Your task to perform on an android device: turn on javascript in the chrome app Image 0: 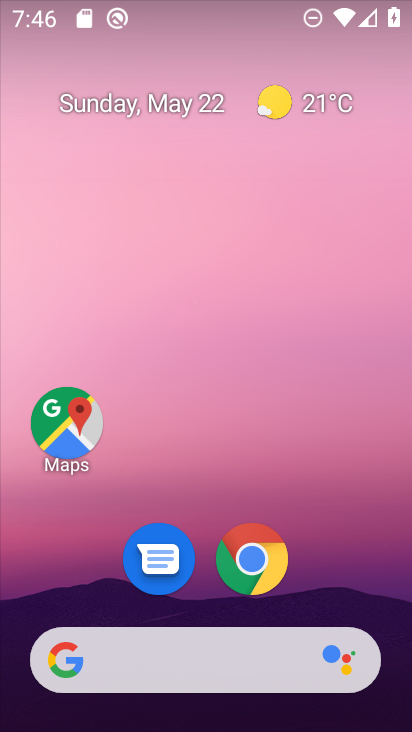
Step 0: drag from (255, 699) to (319, 394)
Your task to perform on an android device: turn on javascript in the chrome app Image 1: 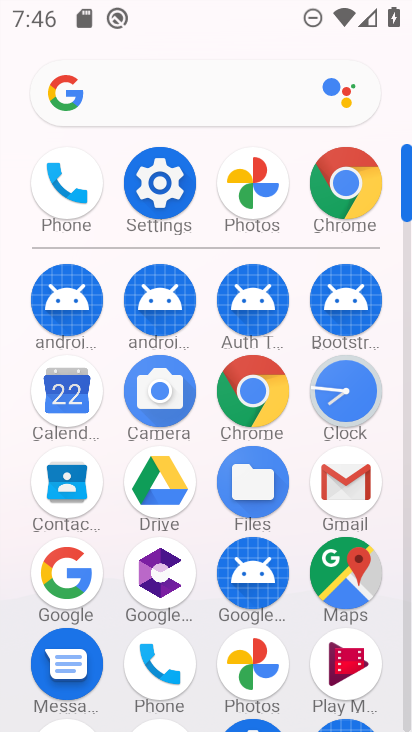
Step 1: click (354, 197)
Your task to perform on an android device: turn on javascript in the chrome app Image 2: 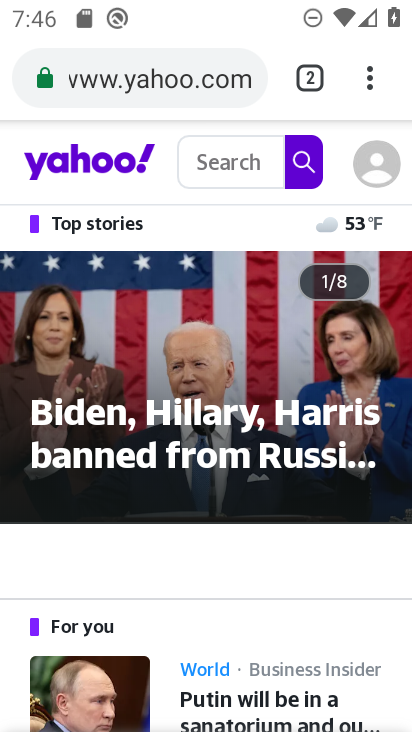
Step 2: click (375, 94)
Your task to perform on an android device: turn on javascript in the chrome app Image 3: 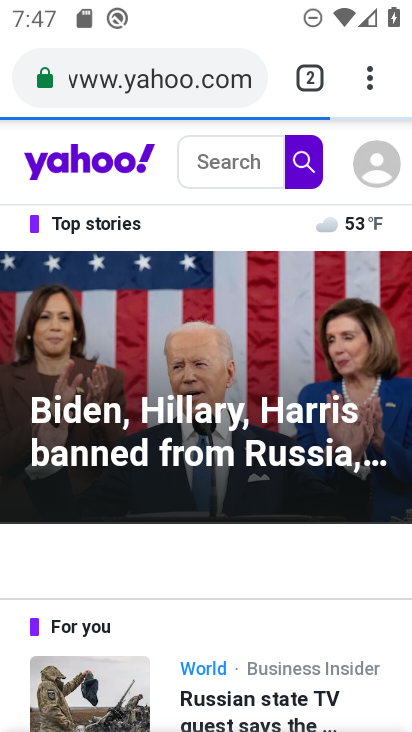
Step 3: click (363, 98)
Your task to perform on an android device: turn on javascript in the chrome app Image 4: 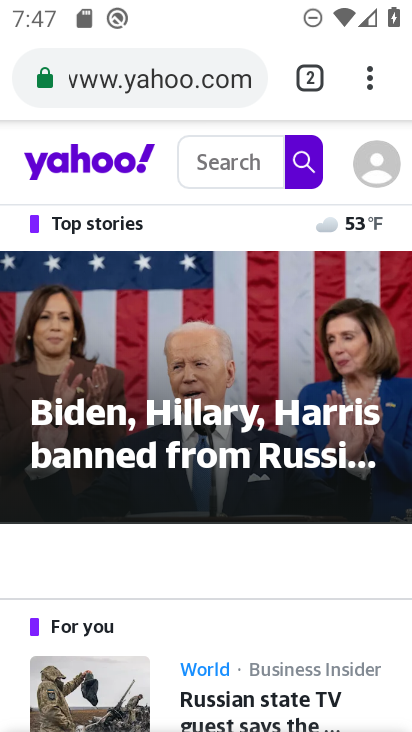
Step 4: click (358, 102)
Your task to perform on an android device: turn on javascript in the chrome app Image 5: 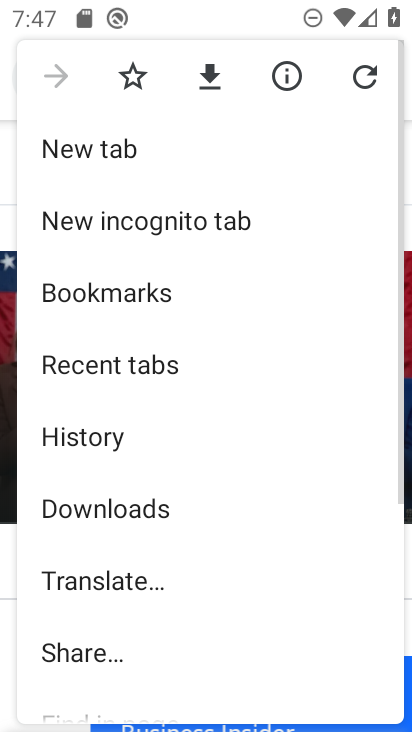
Step 5: drag from (171, 596) to (259, 302)
Your task to perform on an android device: turn on javascript in the chrome app Image 6: 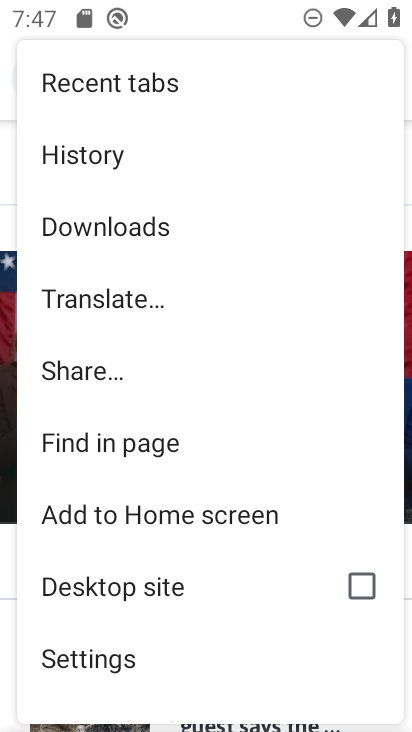
Step 6: click (129, 657)
Your task to perform on an android device: turn on javascript in the chrome app Image 7: 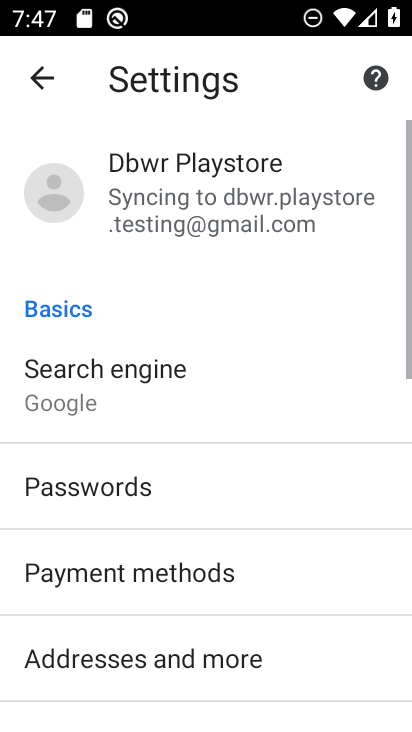
Step 7: drag from (171, 654) to (255, 347)
Your task to perform on an android device: turn on javascript in the chrome app Image 8: 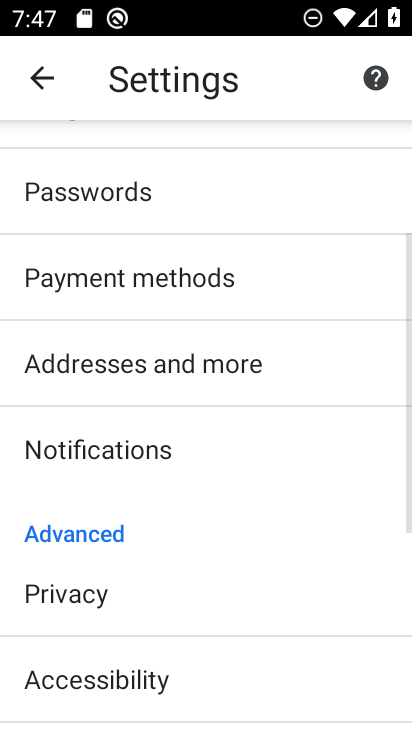
Step 8: drag from (258, 645) to (256, 473)
Your task to perform on an android device: turn on javascript in the chrome app Image 9: 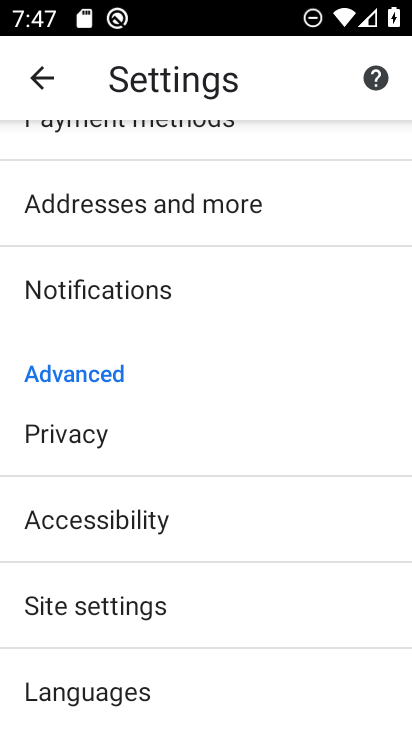
Step 9: click (165, 608)
Your task to perform on an android device: turn on javascript in the chrome app Image 10: 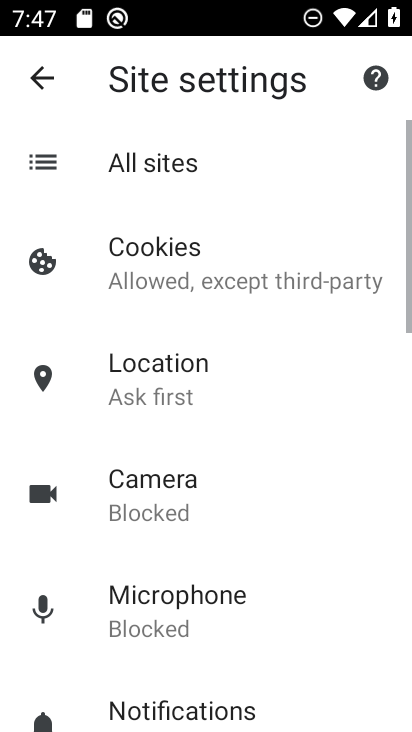
Step 10: drag from (195, 656) to (277, 397)
Your task to perform on an android device: turn on javascript in the chrome app Image 11: 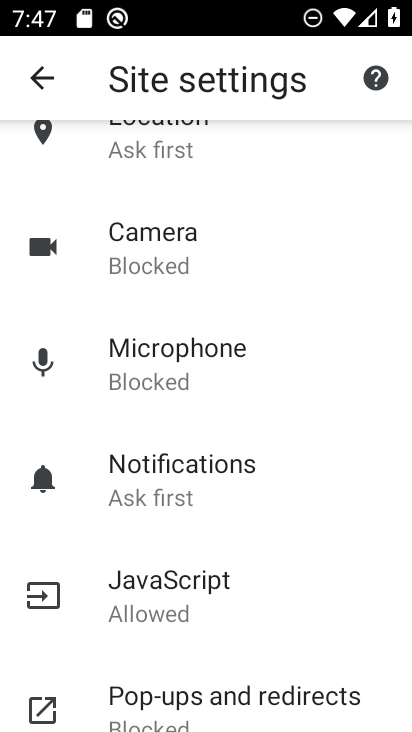
Step 11: click (190, 606)
Your task to perform on an android device: turn on javascript in the chrome app Image 12: 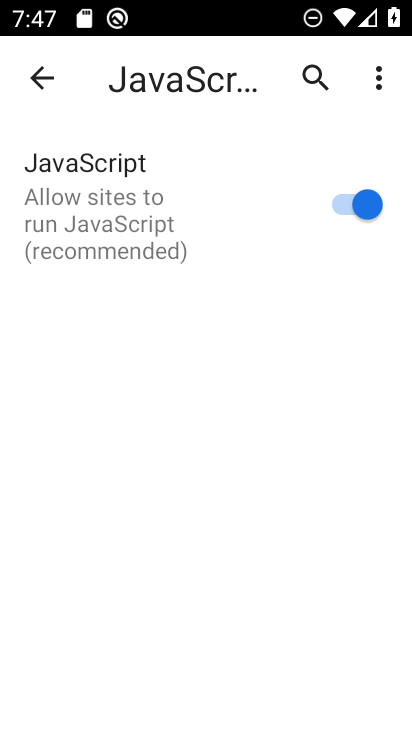
Step 12: click (358, 224)
Your task to perform on an android device: turn on javascript in the chrome app Image 13: 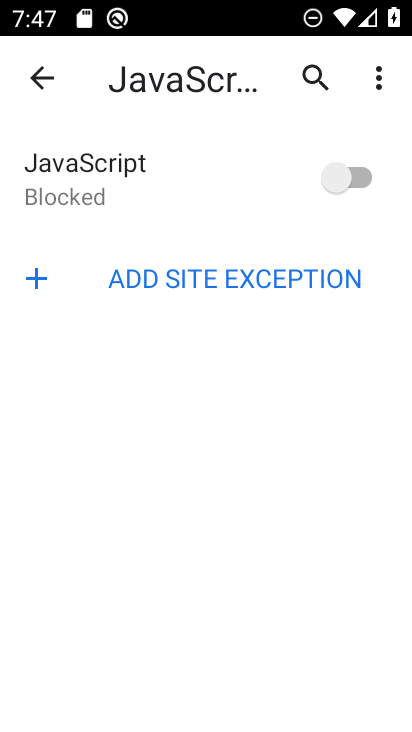
Step 13: click (358, 224)
Your task to perform on an android device: turn on javascript in the chrome app Image 14: 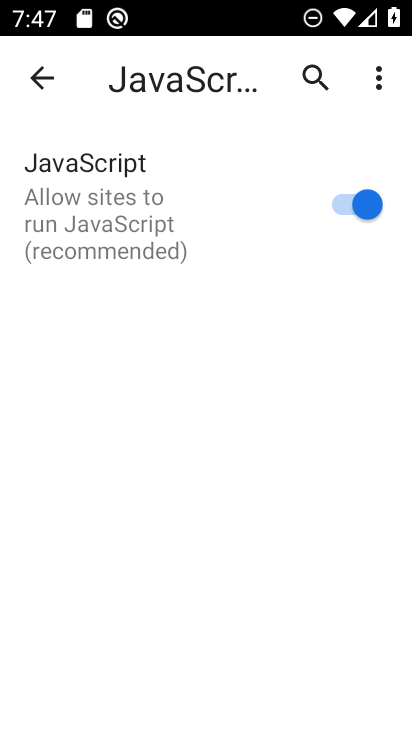
Step 14: task complete